Your task to perform on an android device: add a contact in the contacts app Image 0: 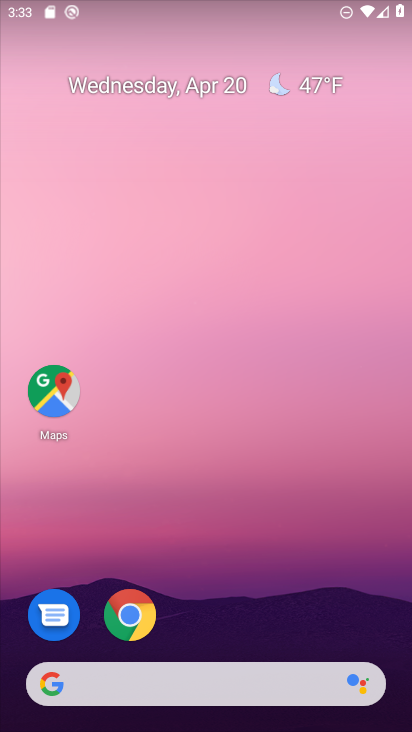
Step 0: drag from (244, 483) to (247, 145)
Your task to perform on an android device: add a contact in the contacts app Image 1: 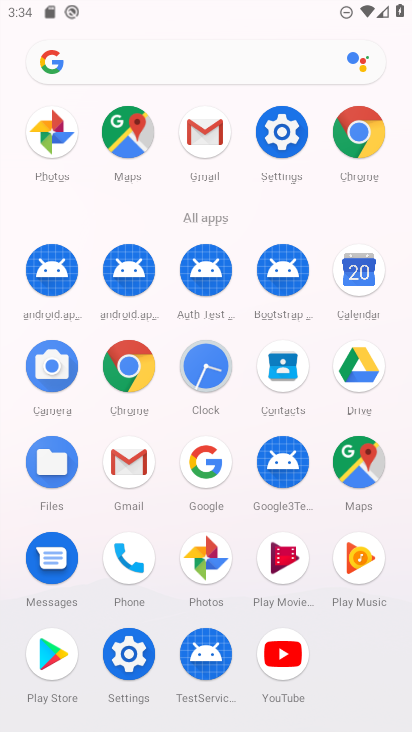
Step 1: click (281, 366)
Your task to perform on an android device: add a contact in the contacts app Image 2: 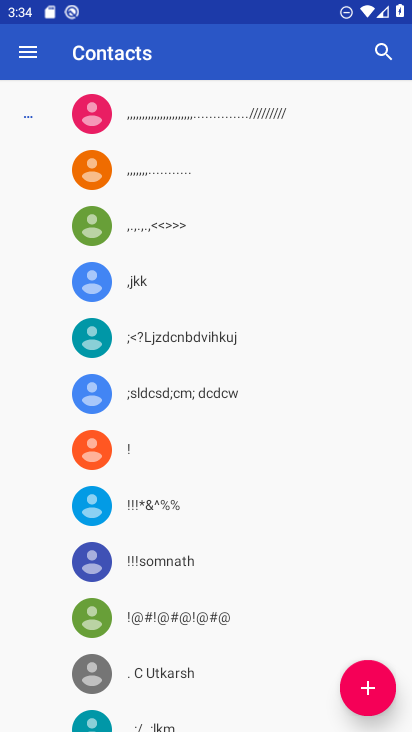
Step 2: task complete